Your task to perform on an android device: open sync settings in chrome Image 0: 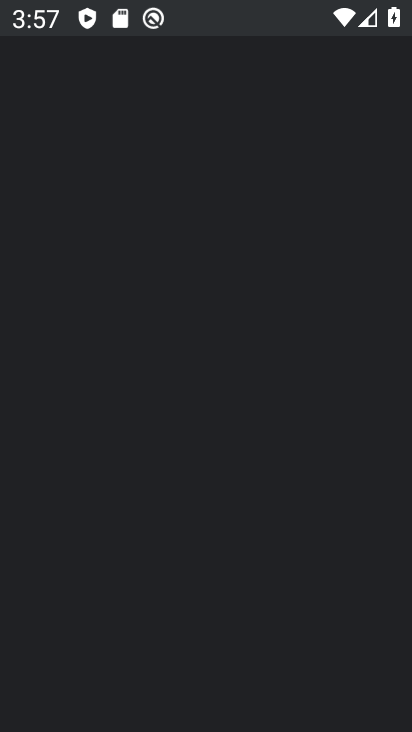
Step 0: drag from (317, 545) to (249, 219)
Your task to perform on an android device: open sync settings in chrome Image 1: 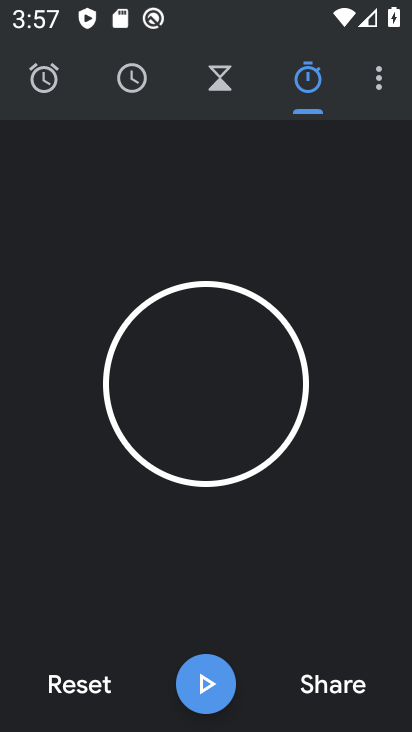
Step 1: press home button
Your task to perform on an android device: open sync settings in chrome Image 2: 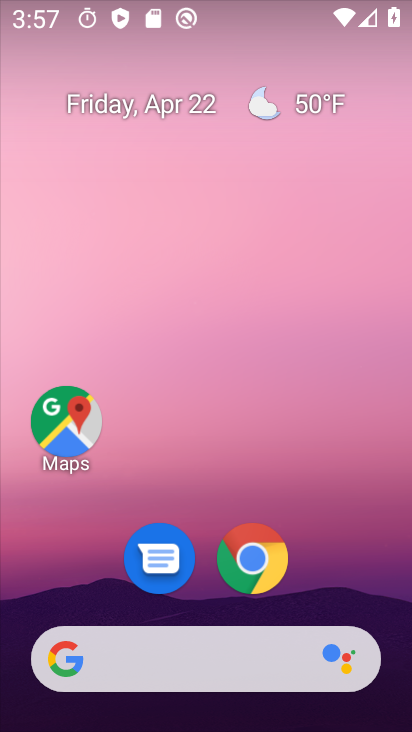
Step 2: drag from (319, 551) to (287, 171)
Your task to perform on an android device: open sync settings in chrome Image 3: 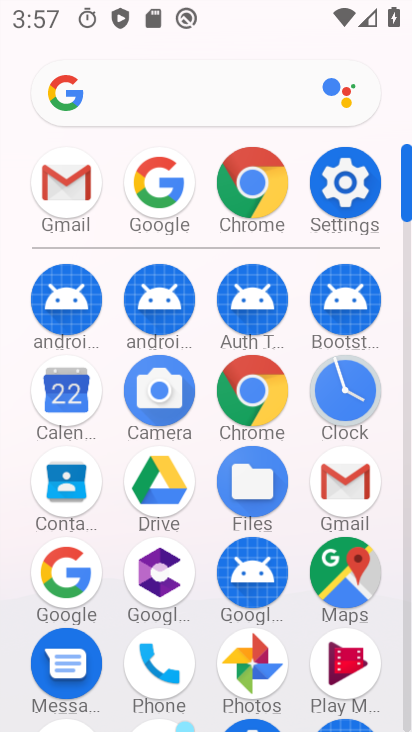
Step 3: click (255, 197)
Your task to perform on an android device: open sync settings in chrome Image 4: 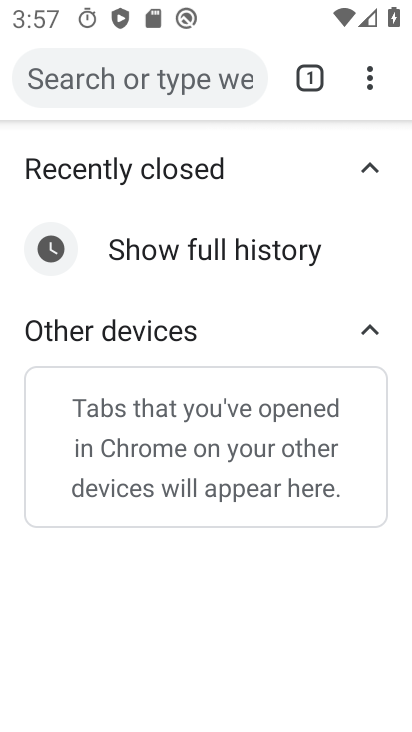
Step 4: click (369, 87)
Your task to perform on an android device: open sync settings in chrome Image 5: 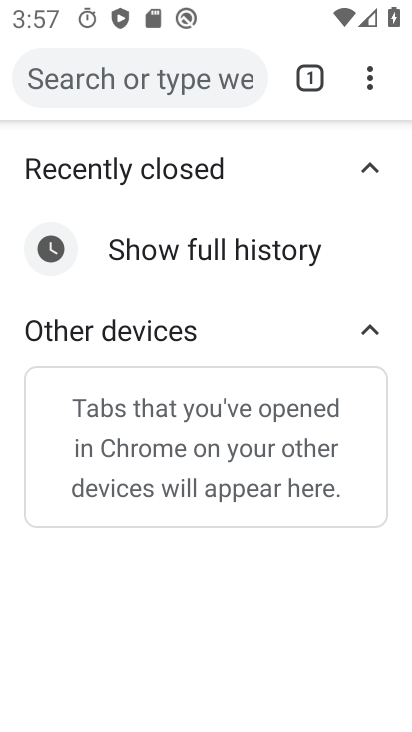
Step 5: click (369, 81)
Your task to perform on an android device: open sync settings in chrome Image 6: 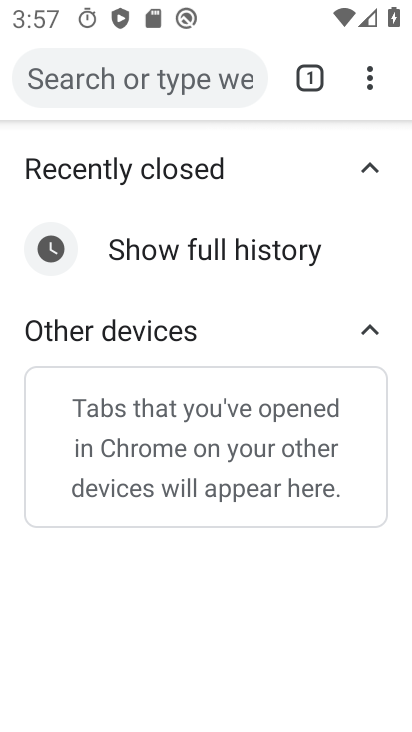
Step 6: click (371, 74)
Your task to perform on an android device: open sync settings in chrome Image 7: 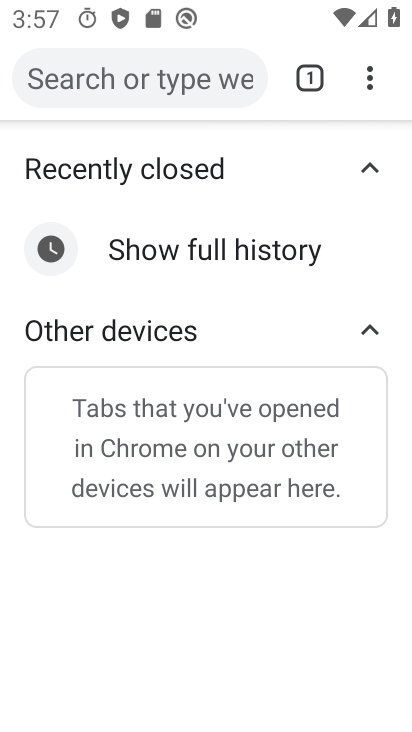
Step 7: click (371, 74)
Your task to perform on an android device: open sync settings in chrome Image 8: 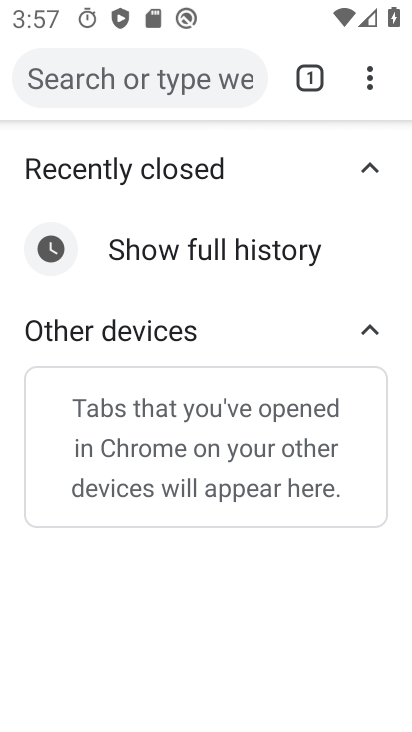
Step 8: click (373, 77)
Your task to perform on an android device: open sync settings in chrome Image 9: 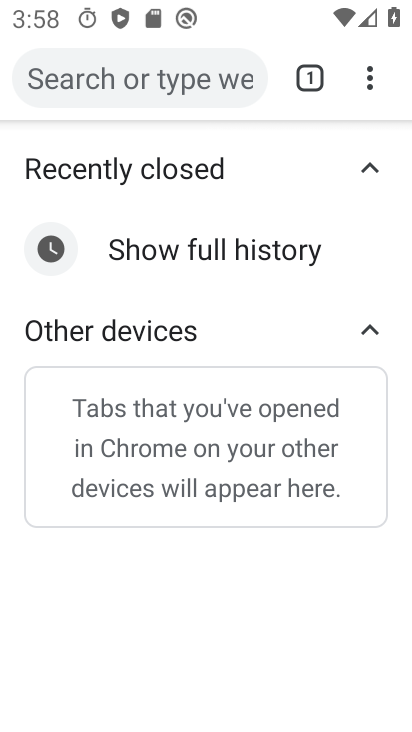
Step 9: click (372, 81)
Your task to perform on an android device: open sync settings in chrome Image 10: 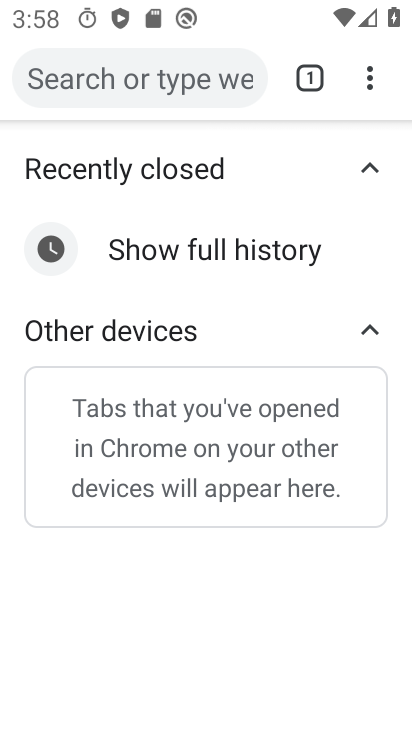
Step 10: click (372, 81)
Your task to perform on an android device: open sync settings in chrome Image 11: 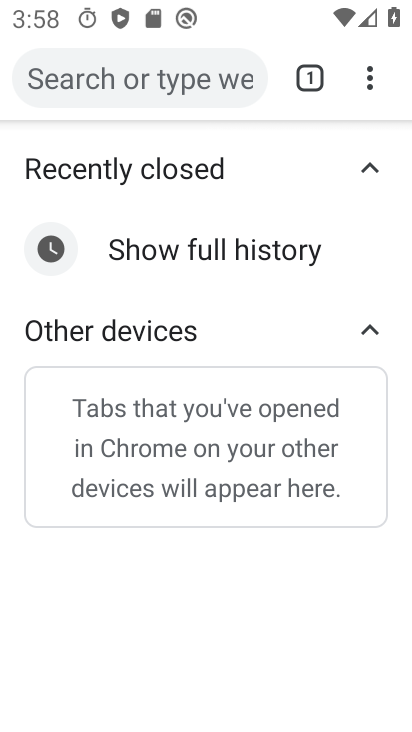
Step 11: click (366, 75)
Your task to perform on an android device: open sync settings in chrome Image 12: 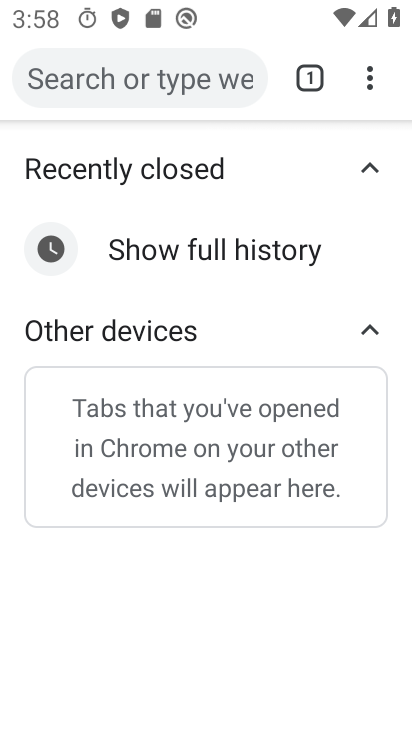
Step 12: click (367, 79)
Your task to perform on an android device: open sync settings in chrome Image 13: 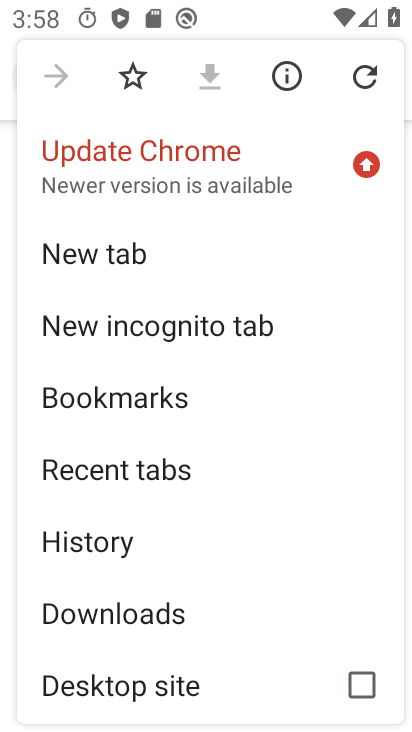
Step 13: drag from (201, 632) to (205, 356)
Your task to perform on an android device: open sync settings in chrome Image 14: 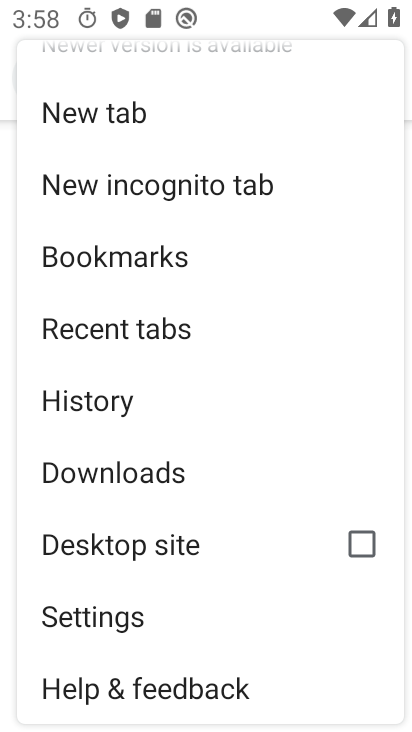
Step 14: click (113, 622)
Your task to perform on an android device: open sync settings in chrome Image 15: 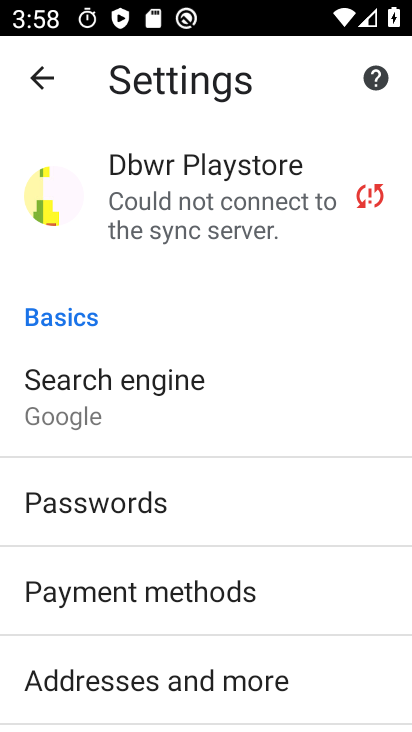
Step 15: drag from (180, 649) to (164, 358)
Your task to perform on an android device: open sync settings in chrome Image 16: 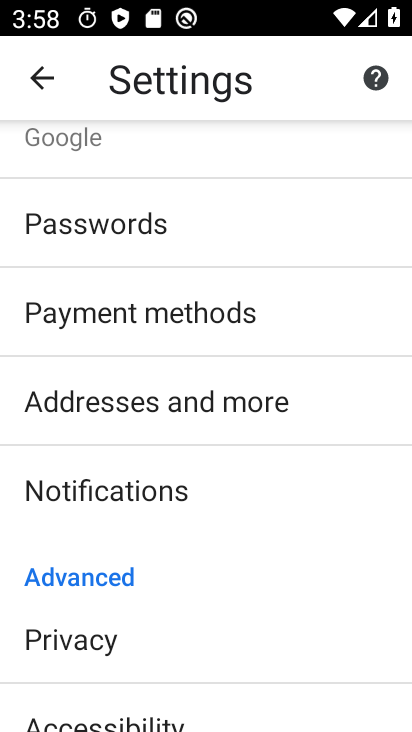
Step 16: drag from (195, 639) to (219, 423)
Your task to perform on an android device: open sync settings in chrome Image 17: 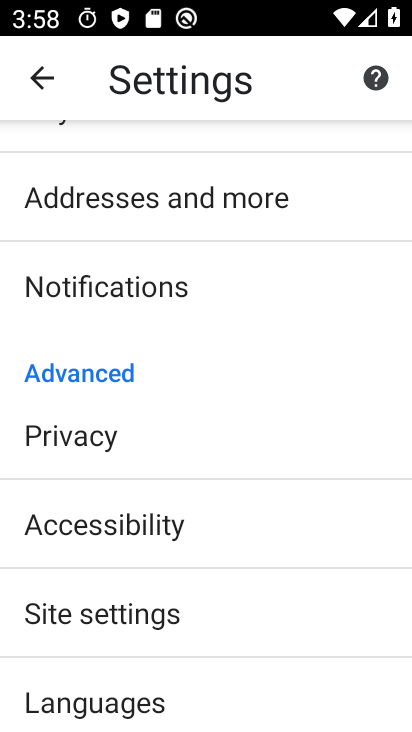
Step 17: drag from (226, 642) to (263, 381)
Your task to perform on an android device: open sync settings in chrome Image 18: 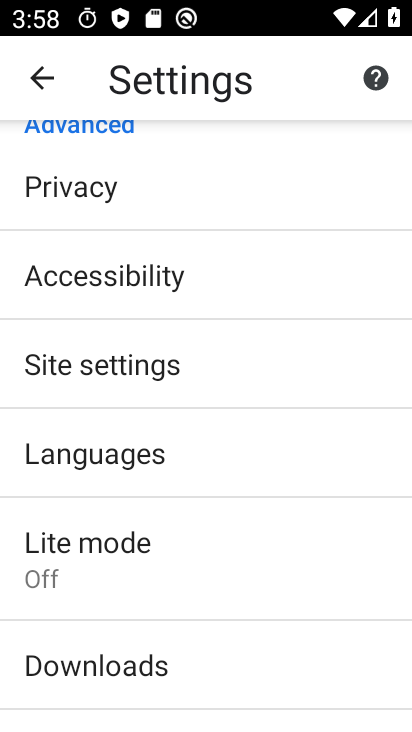
Step 18: drag from (237, 259) to (180, 650)
Your task to perform on an android device: open sync settings in chrome Image 19: 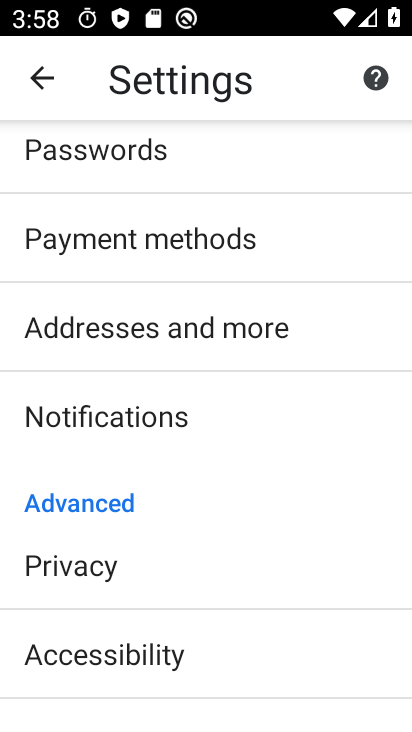
Step 19: drag from (215, 310) to (146, 639)
Your task to perform on an android device: open sync settings in chrome Image 20: 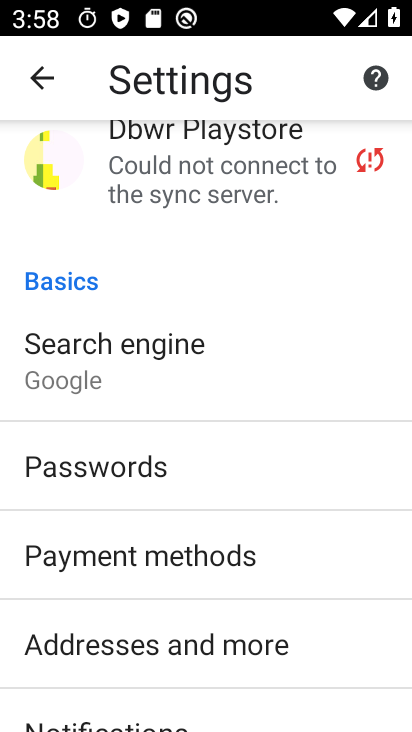
Step 20: click (180, 192)
Your task to perform on an android device: open sync settings in chrome Image 21: 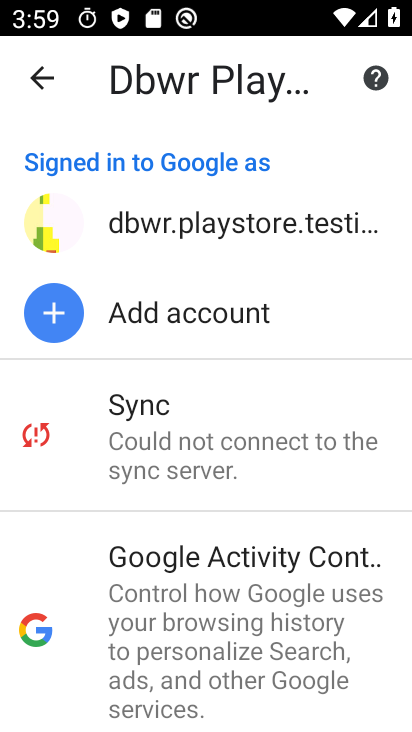
Step 21: click (162, 464)
Your task to perform on an android device: open sync settings in chrome Image 22: 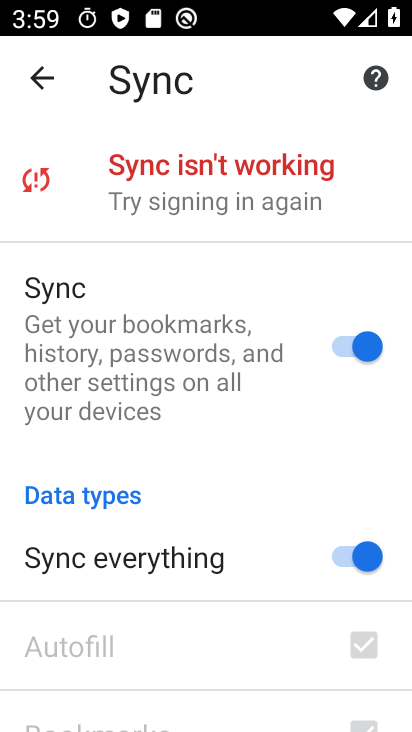
Step 22: task complete